Your task to perform on an android device: Open battery settings Image 0: 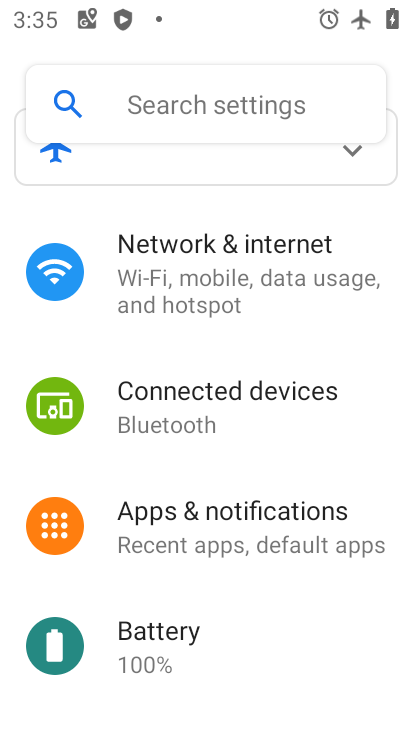
Step 0: click (164, 637)
Your task to perform on an android device: Open battery settings Image 1: 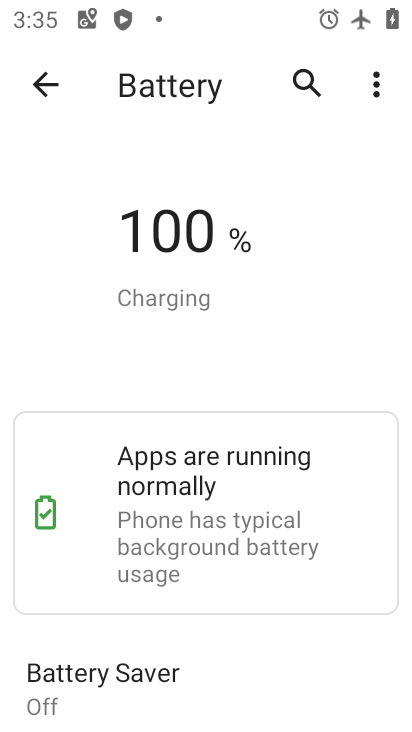
Step 1: task complete